Your task to perform on an android device: Search for vegetarian restaurants on Maps Image 0: 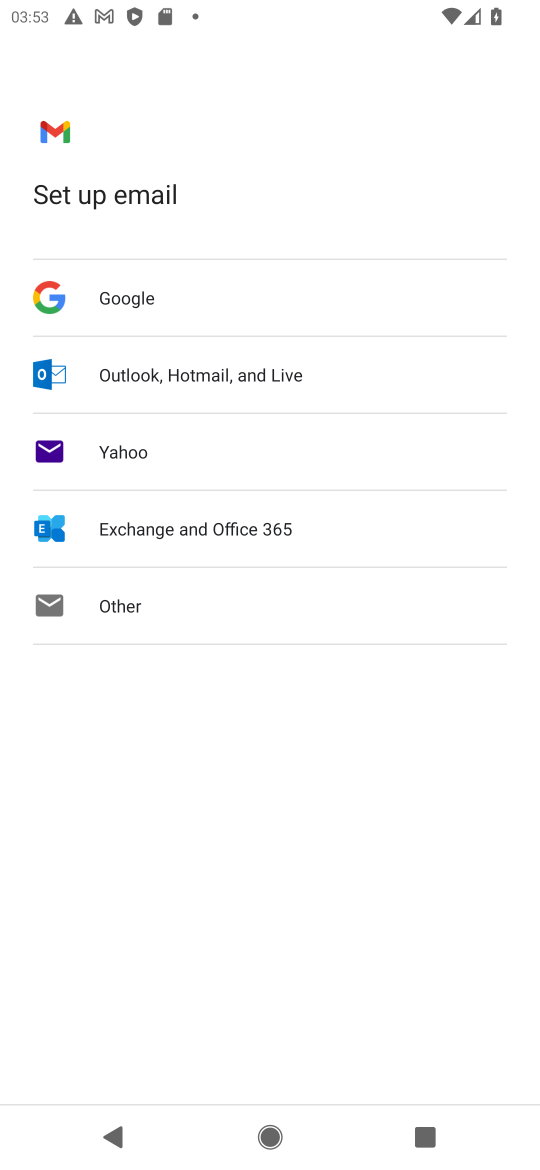
Step 0: press home button
Your task to perform on an android device: Search for vegetarian restaurants on Maps Image 1: 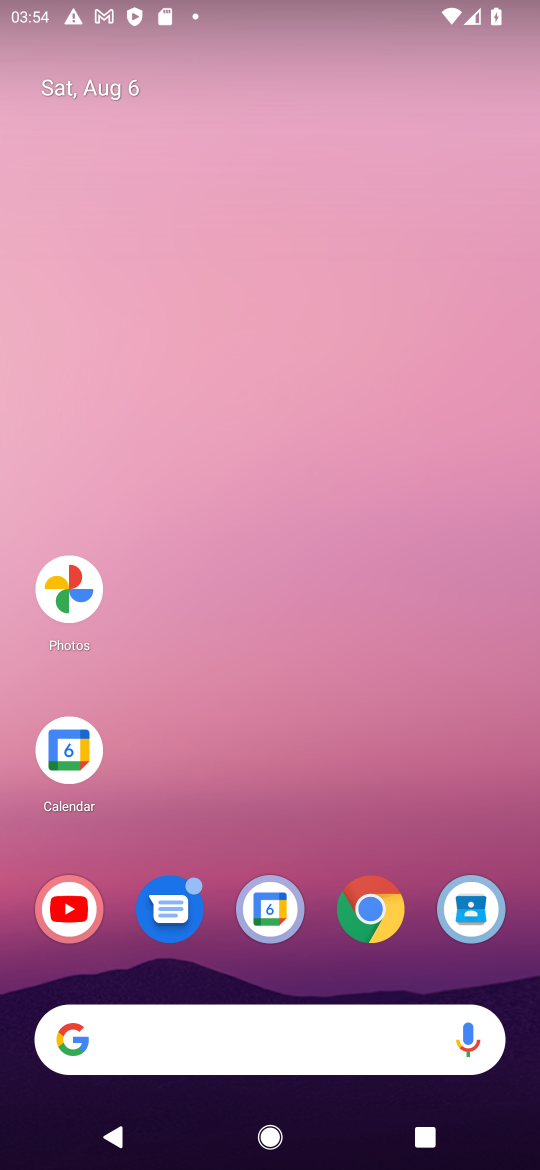
Step 1: drag from (287, 765) to (261, 193)
Your task to perform on an android device: Search for vegetarian restaurants on Maps Image 2: 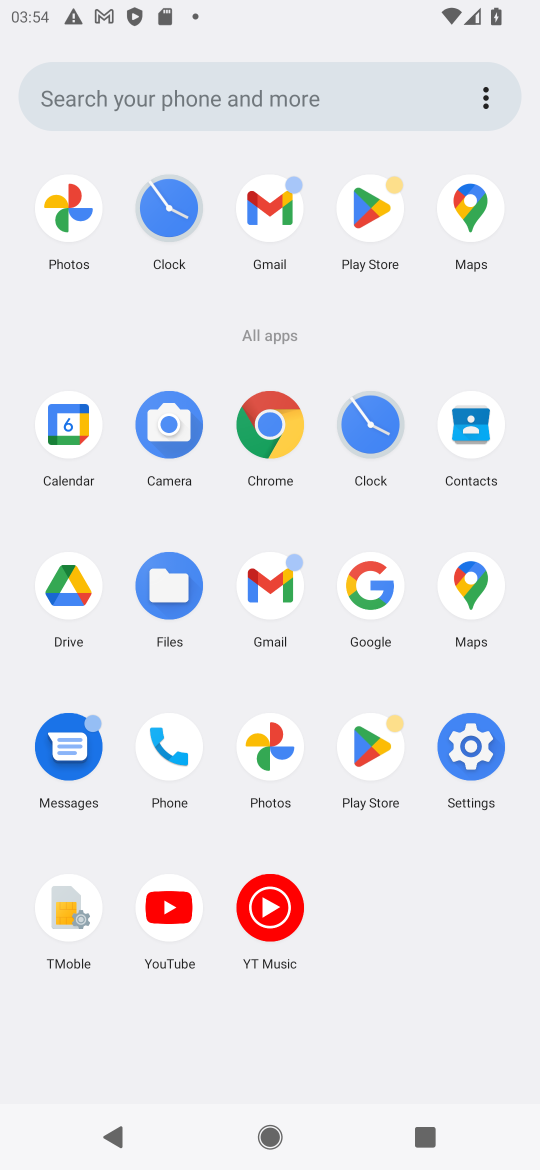
Step 2: click (474, 589)
Your task to perform on an android device: Search for vegetarian restaurants on Maps Image 3: 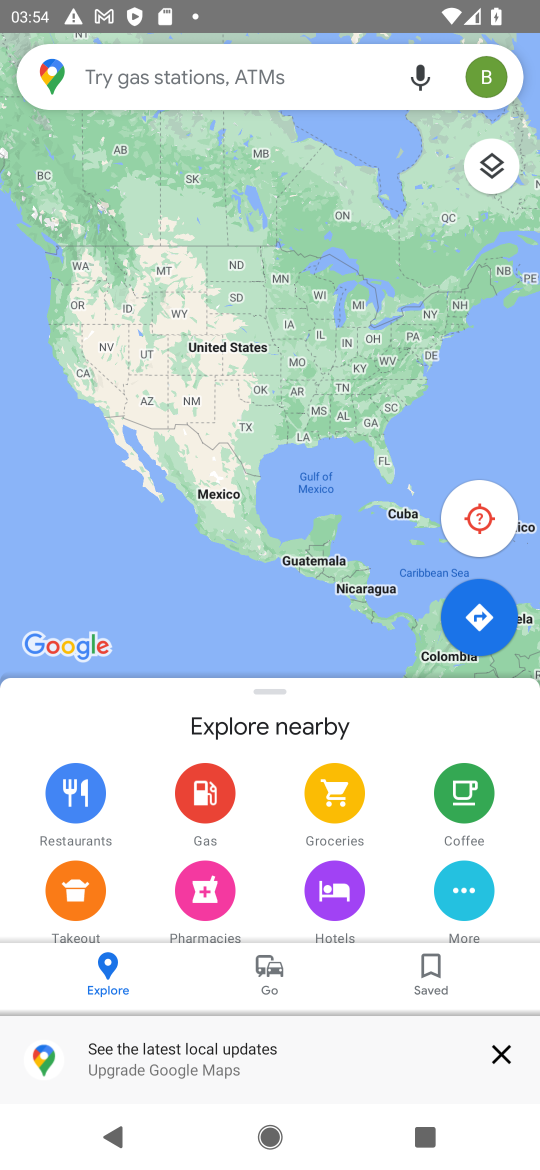
Step 3: click (214, 75)
Your task to perform on an android device: Search for vegetarian restaurants on Maps Image 4: 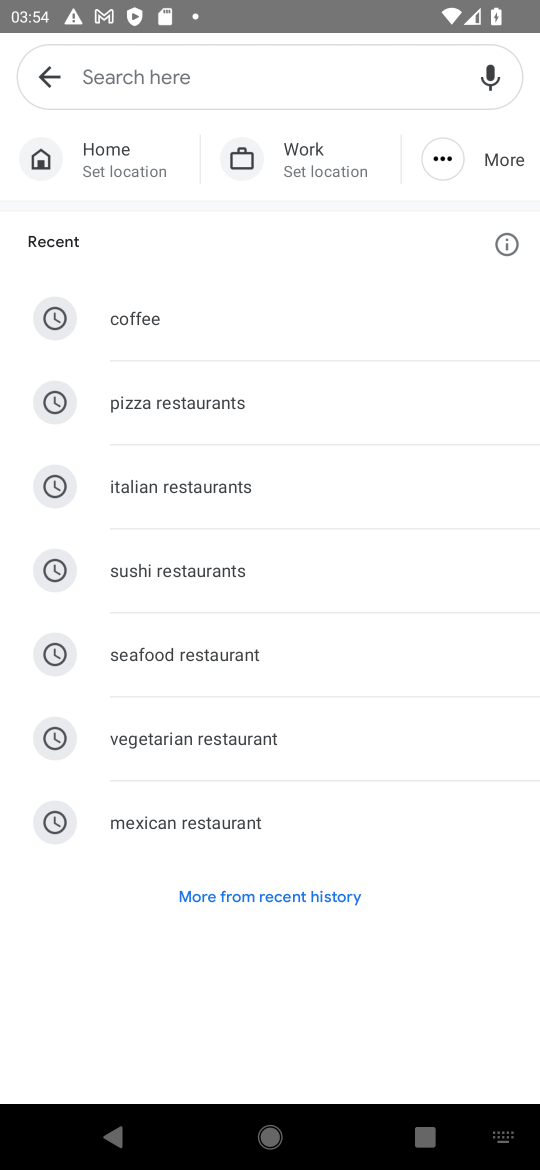
Step 4: click (219, 739)
Your task to perform on an android device: Search for vegetarian restaurants on Maps Image 5: 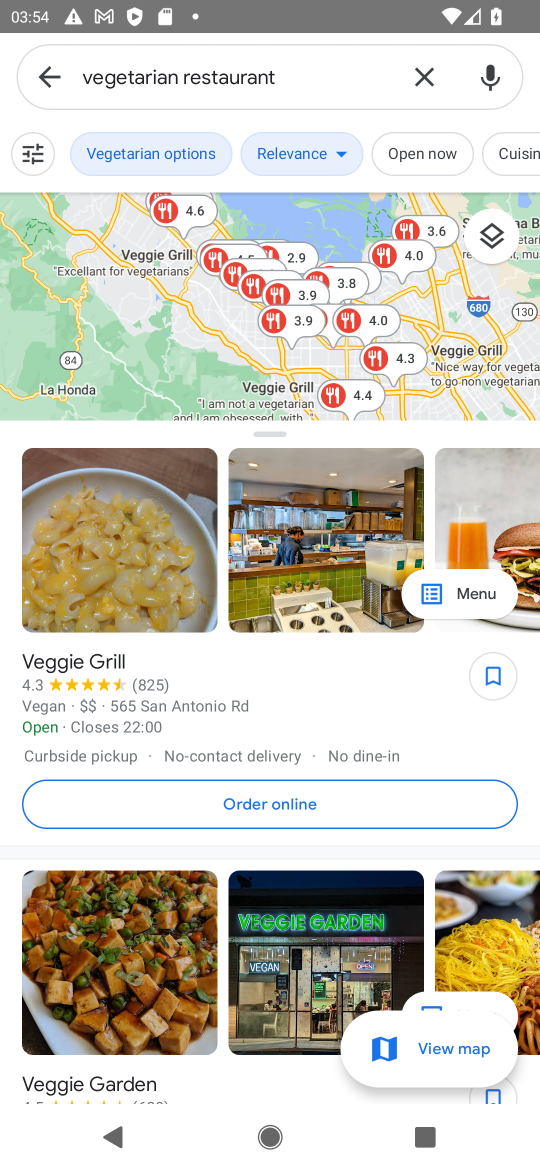
Step 5: task complete